Your task to perform on an android device: check android version Image 0: 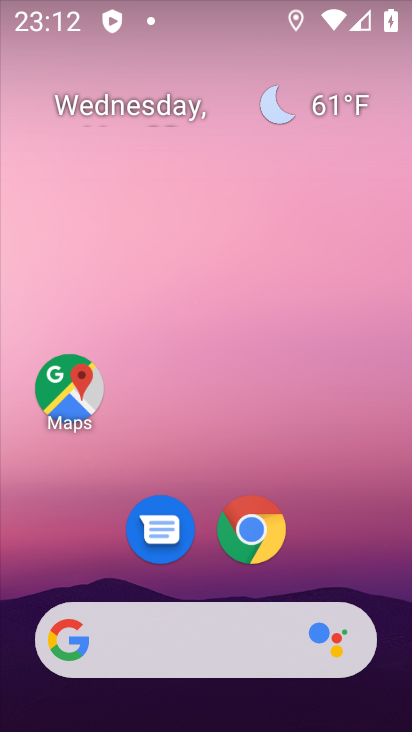
Step 0: drag from (381, 555) to (402, 195)
Your task to perform on an android device: check android version Image 1: 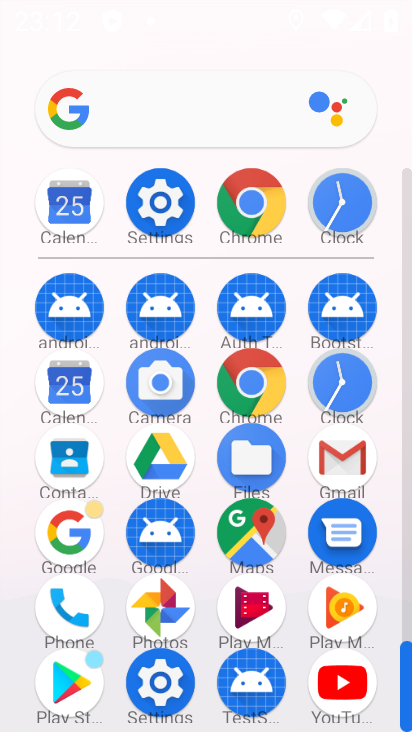
Step 1: click (172, 214)
Your task to perform on an android device: check android version Image 2: 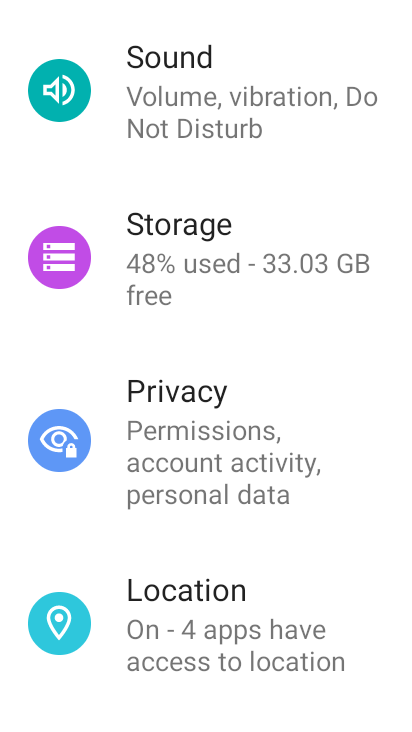
Step 2: drag from (316, 213) to (330, 299)
Your task to perform on an android device: check android version Image 3: 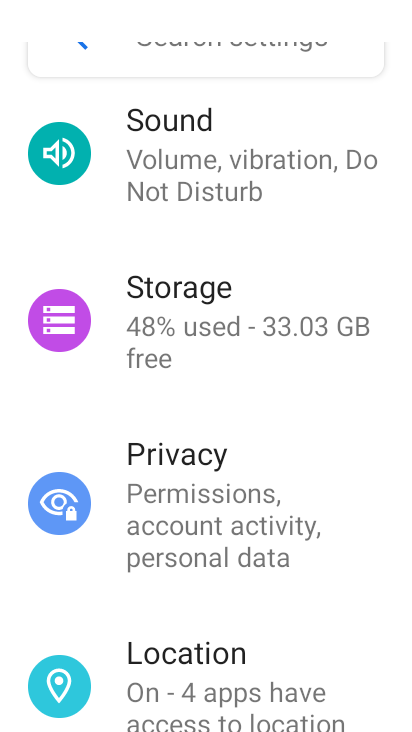
Step 3: drag from (341, 211) to (339, 300)
Your task to perform on an android device: check android version Image 4: 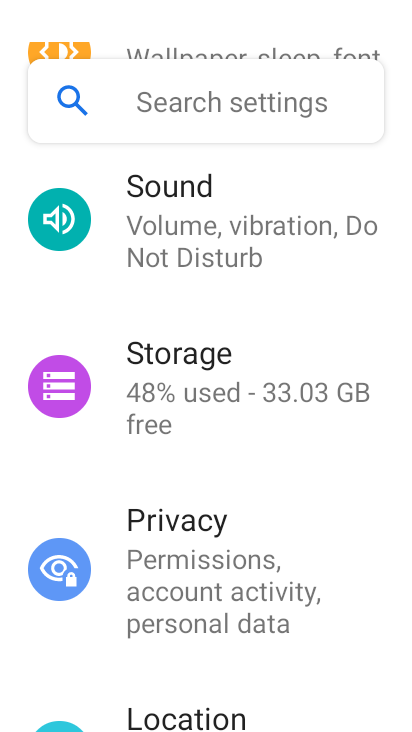
Step 4: drag from (333, 189) to (333, 300)
Your task to perform on an android device: check android version Image 5: 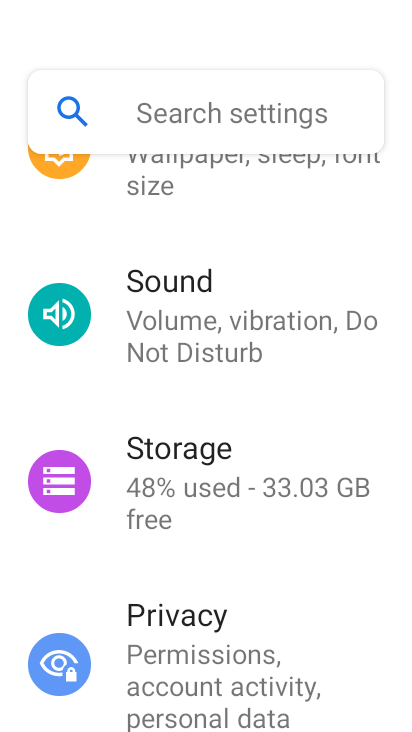
Step 5: drag from (331, 215) to (352, 319)
Your task to perform on an android device: check android version Image 6: 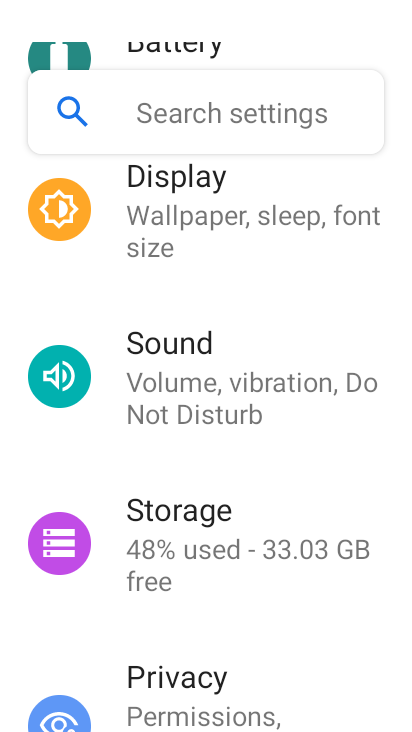
Step 6: drag from (338, 179) to (360, 296)
Your task to perform on an android device: check android version Image 7: 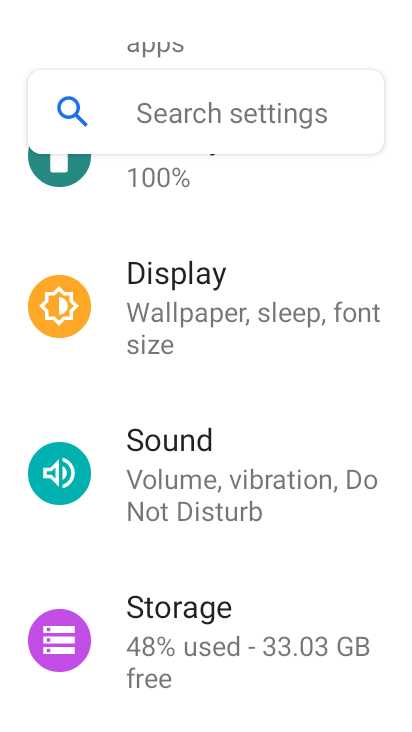
Step 7: drag from (298, 197) to (317, 293)
Your task to perform on an android device: check android version Image 8: 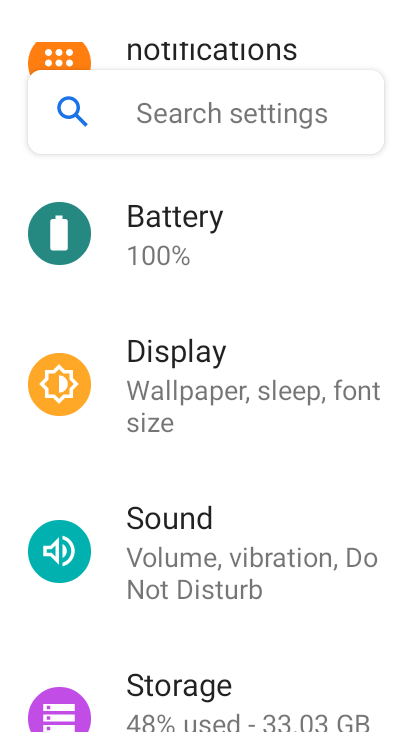
Step 8: drag from (303, 218) to (321, 303)
Your task to perform on an android device: check android version Image 9: 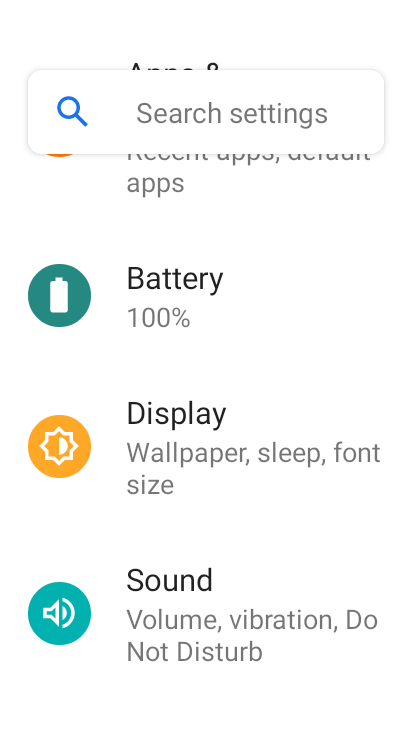
Step 9: drag from (300, 203) to (317, 291)
Your task to perform on an android device: check android version Image 10: 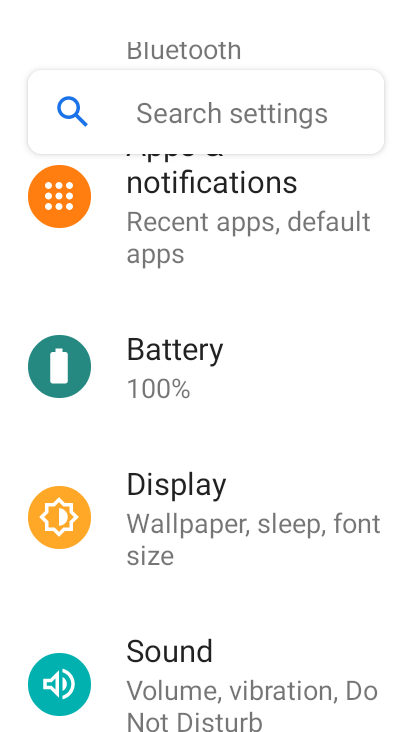
Step 10: drag from (327, 185) to (332, 324)
Your task to perform on an android device: check android version Image 11: 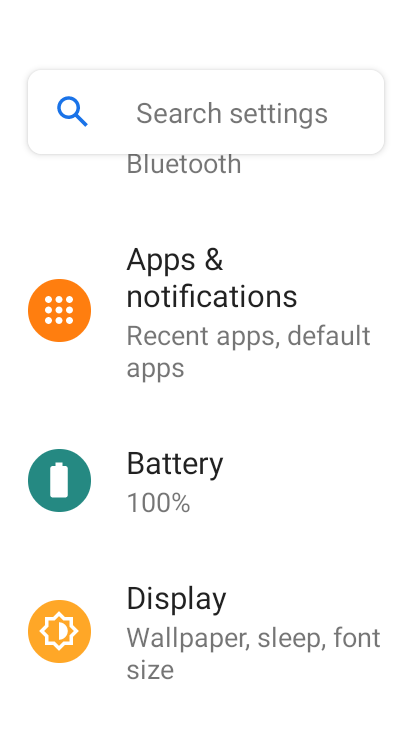
Step 11: drag from (307, 180) to (324, 308)
Your task to perform on an android device: check android version Image 12: 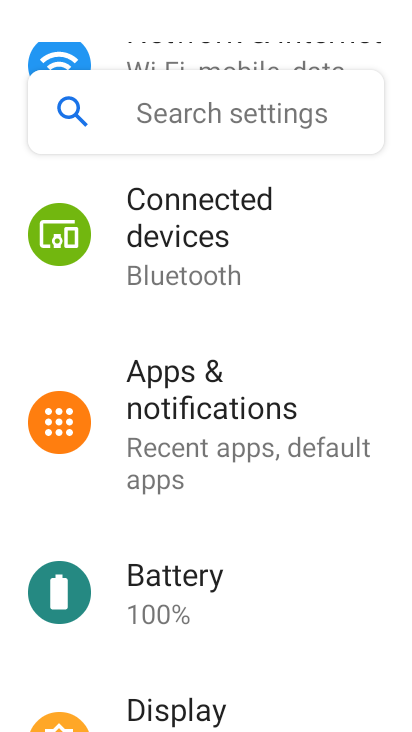
Step 12: drag from (315, 348) to (317, 225)
Your task to perform on an android device: check android version Image 13: 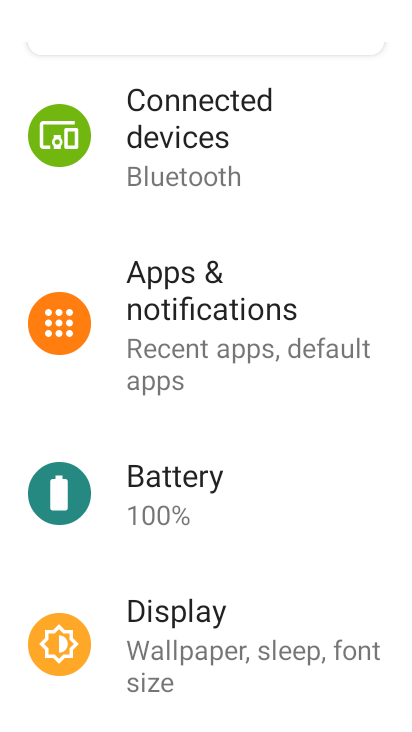
Step 13: drag from (331, 425) to (312, 300)
Your task to perform on an android device: check android version Image 14: 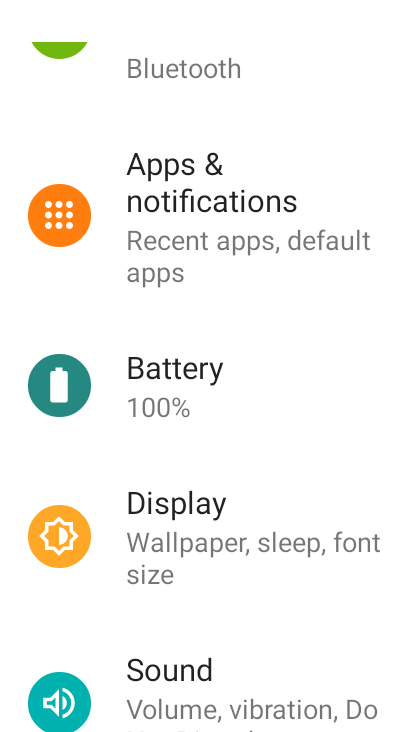
Step 14: drag from (281, 449) to (292, 329)
Your task to perform on an android device: check android version Image 15: 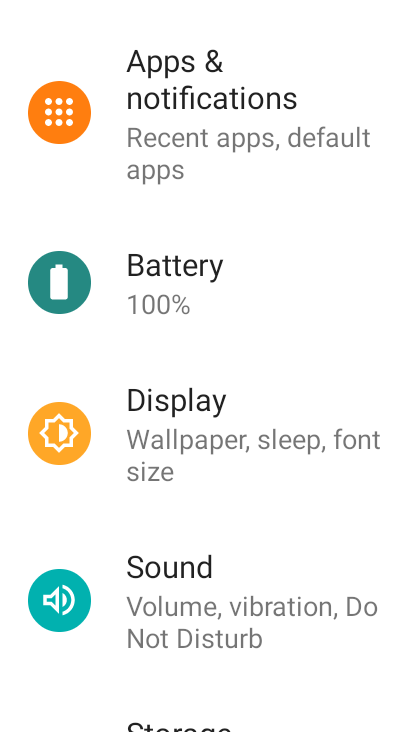
Step 15: drag from (314, 514) to (342, 362)
Your task to perform on an android device: check android version Image 16: 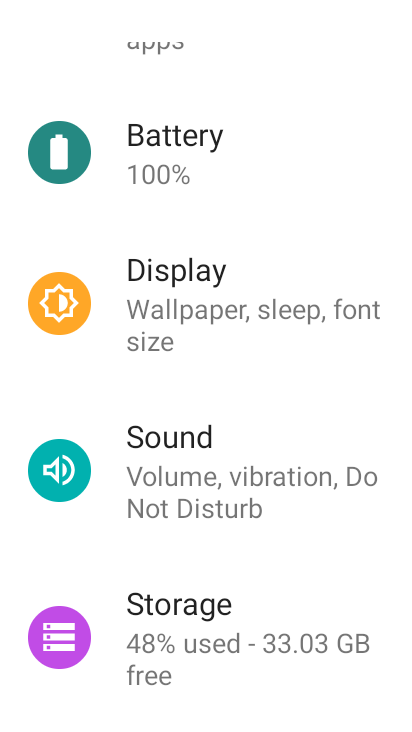
Step 16: drag from (310, 561) to (321, 407)
Your task to perform on an android device: check android version Image 17: 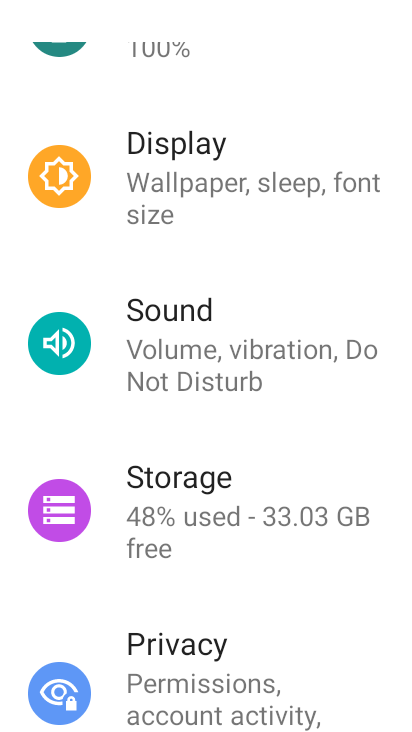
Step 17: drag from (309, 581) to (320, 452)
Your task to perform on an android device: check android version Image 18: 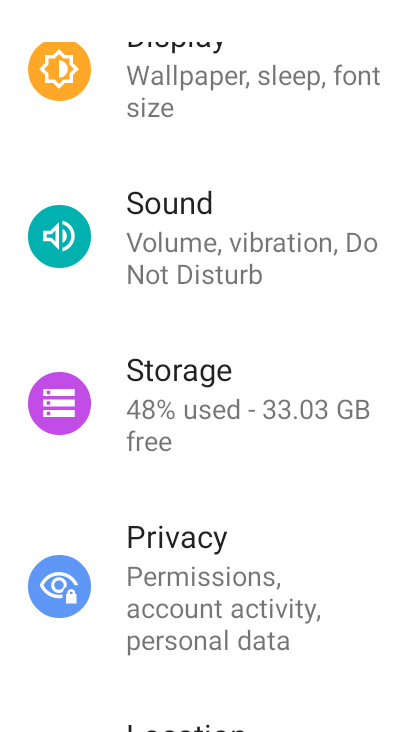
Step 18: drag from (332, 605) to (338, 473)
Your task to perform on an android device: check android version Image 19: 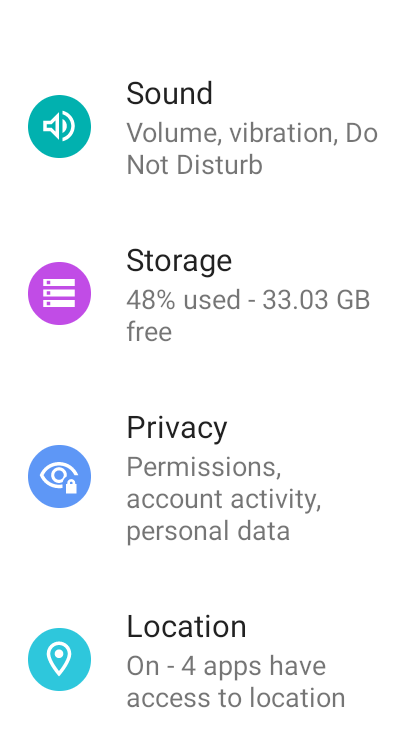
Step 19: drag from (327, 618) to (333, 473)
Your task to perform on an android device: check android version Image 20: 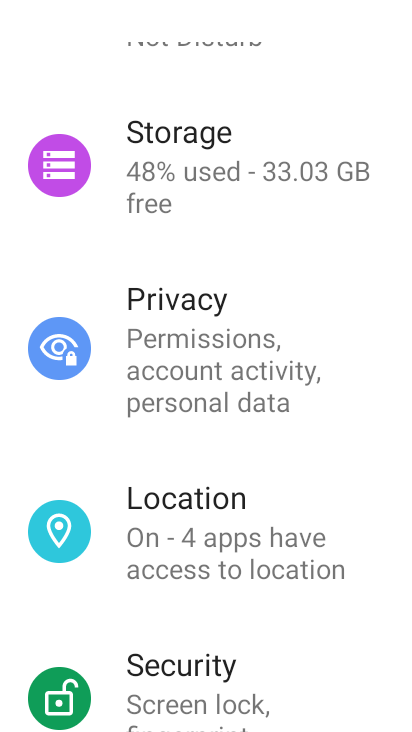
Step 20: drag from (321, 645) to (317, 504)
Your task to perform on an android device: check android version Image 21: 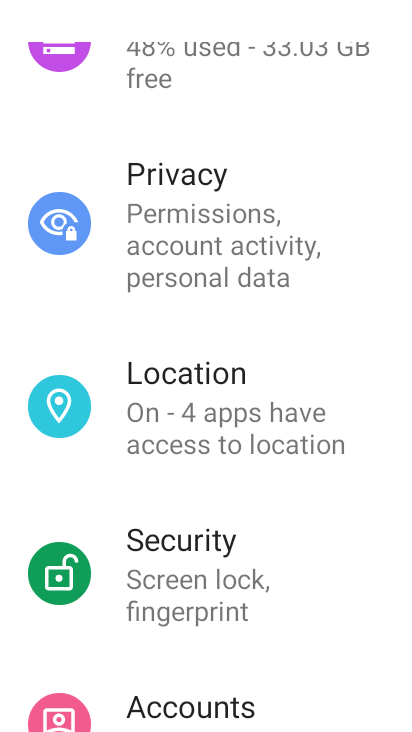
Step 21: drag from (318, 647) to (328, 532)
Your task to perform on an android device: check android version Image 22: 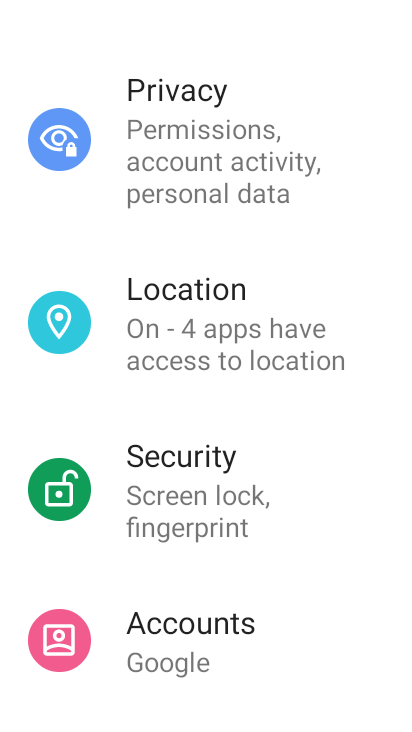
Step 22: drag from (311, 650) to (310, 546)
Your task to perform on an android device: check android version Image 23: 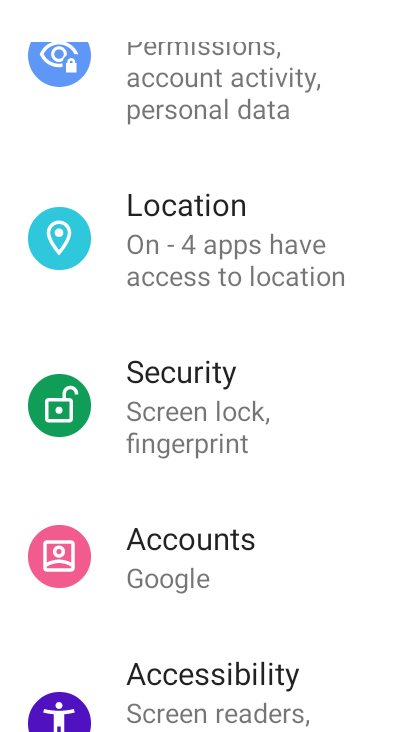
Step 23: drag from (329, 623) to (335, 471)
Your task to perform on an android device: check android version Image 24: 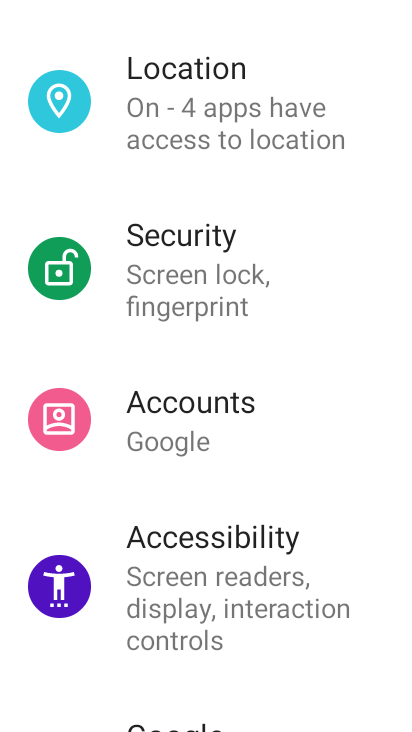
Step 24: drag from (341, 652) to (346, 498)
Your task to perform on an android device: check android version Image 25: 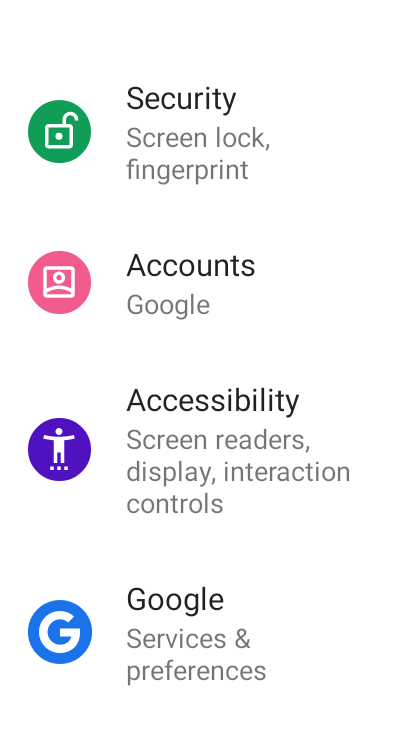
Step 25: drag from (331, 662) to (337, 472)
Your task to perform on an android device: check android version Image 26: 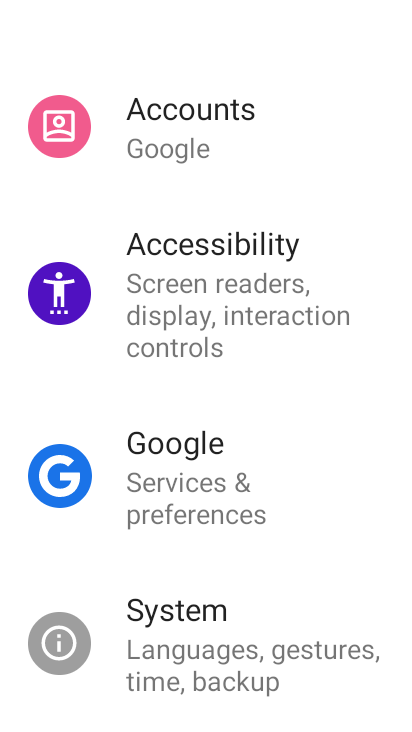
Step 26: drag from (331, 669) to (360, 492)
Your task to perform on an android device: check android version Image 27: 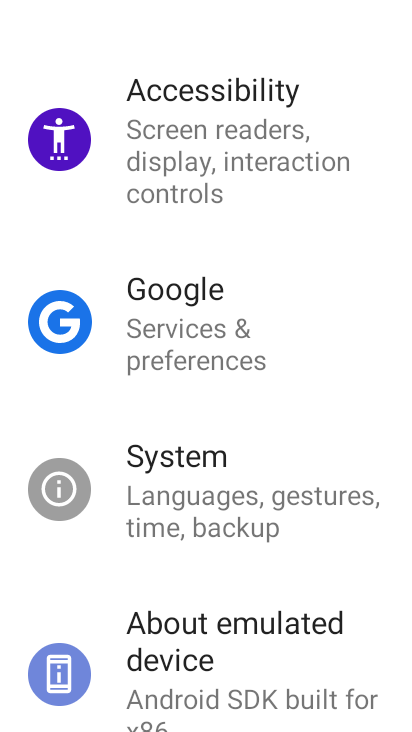
Step 27: click (279, 521)
Your task to perform on an android device: check android version Image 28: 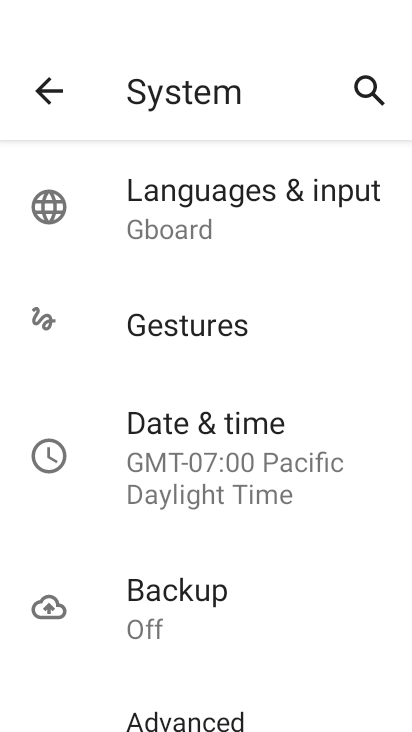
Step 28: drag from (282, 602) to (282, 478)
Your task to perform on an android device: check android version Image 29: 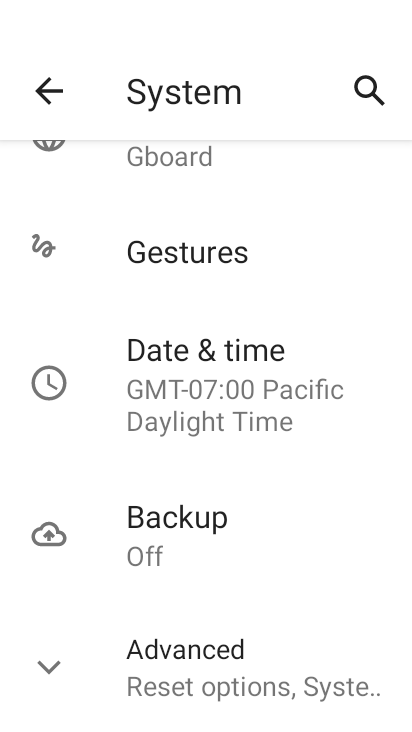
Step 29: click (253, 648)
Your task to perform on an android device: check android version Image 30: 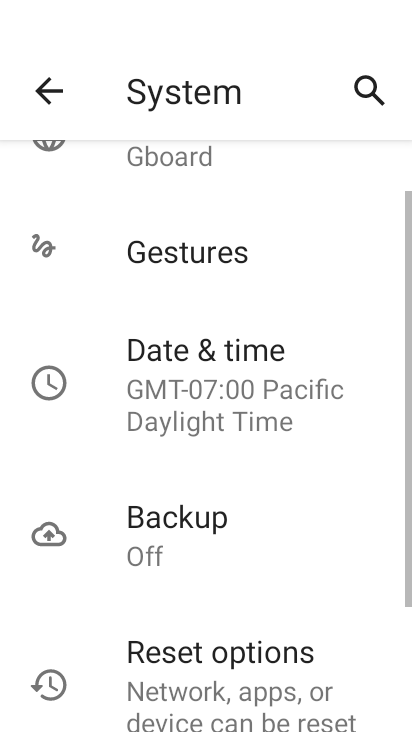
Step 30: drag from (269, 642) to (283, 500)
Your task to perform on an android device: check android version Image 31: 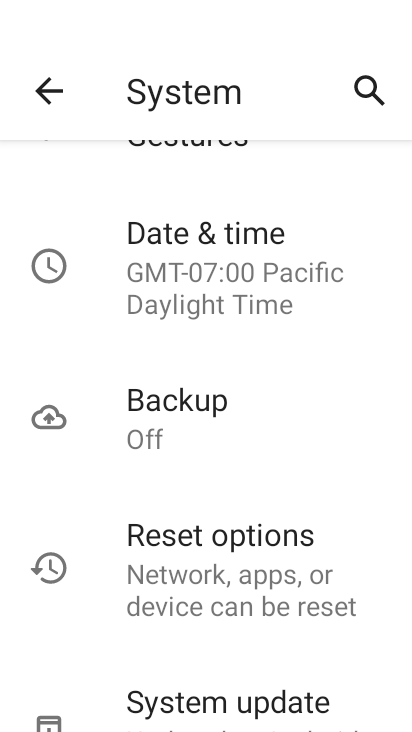
Step 31: drag from (275, 638) to (274, 473)
Your task to perform on an android device: check android version Image 32: 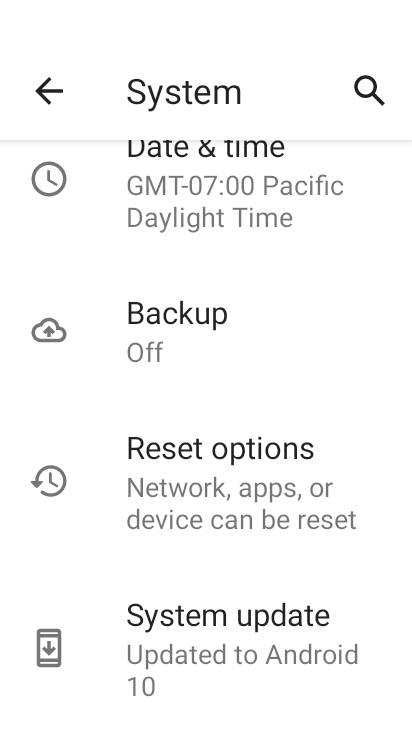
Step 32: click (270, 638)
Your task to perform on an android device: check android version Image 33: 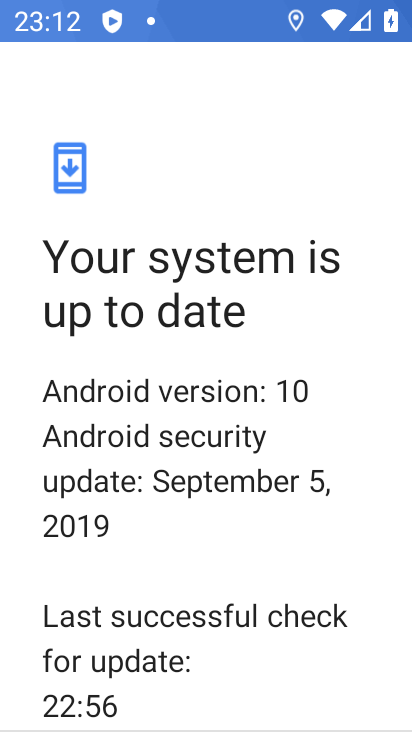
Step 33: task complete